Your task to perform on an android device: add a label to a message in the gmail app Image 0: 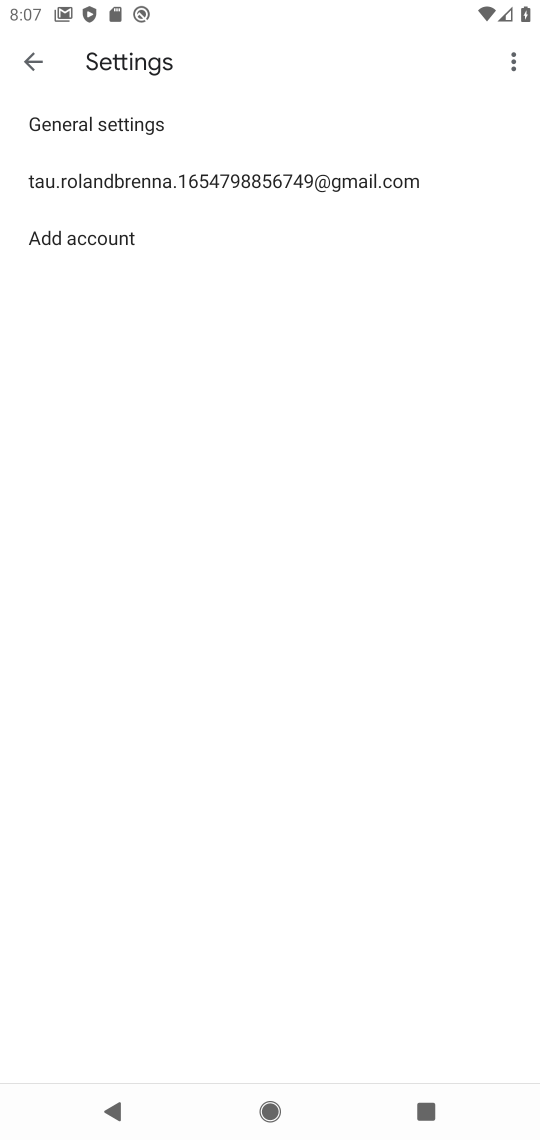
Step 0: press home button
Your task to perform on an android device: add a label to a message in the gmail app Image 1: 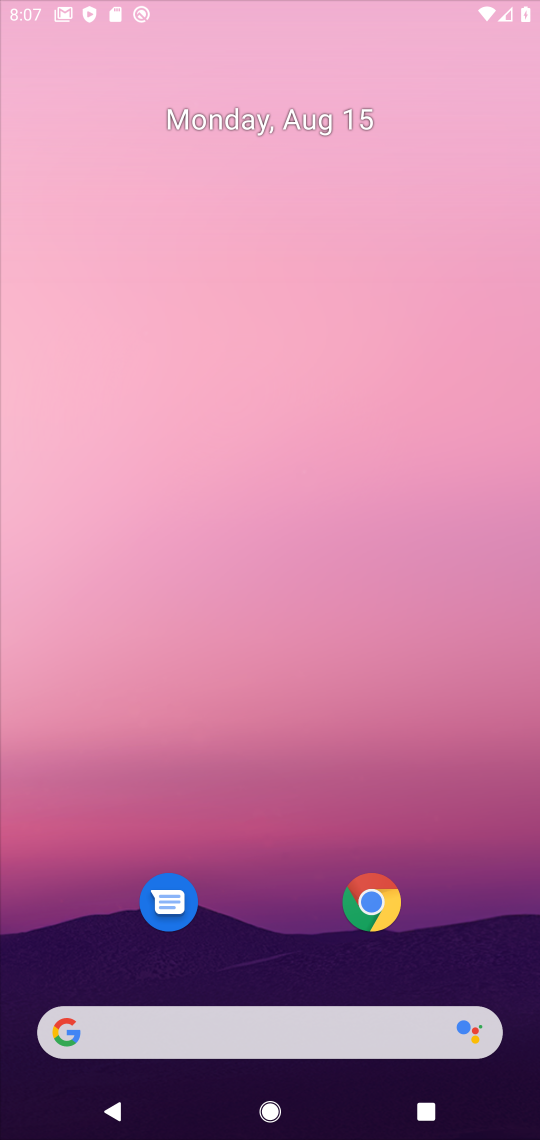
Step 1: drag from (507, 974) to (392, 28)
Your task to perform on an android device: add a label to a message in the gmail app Image 2: 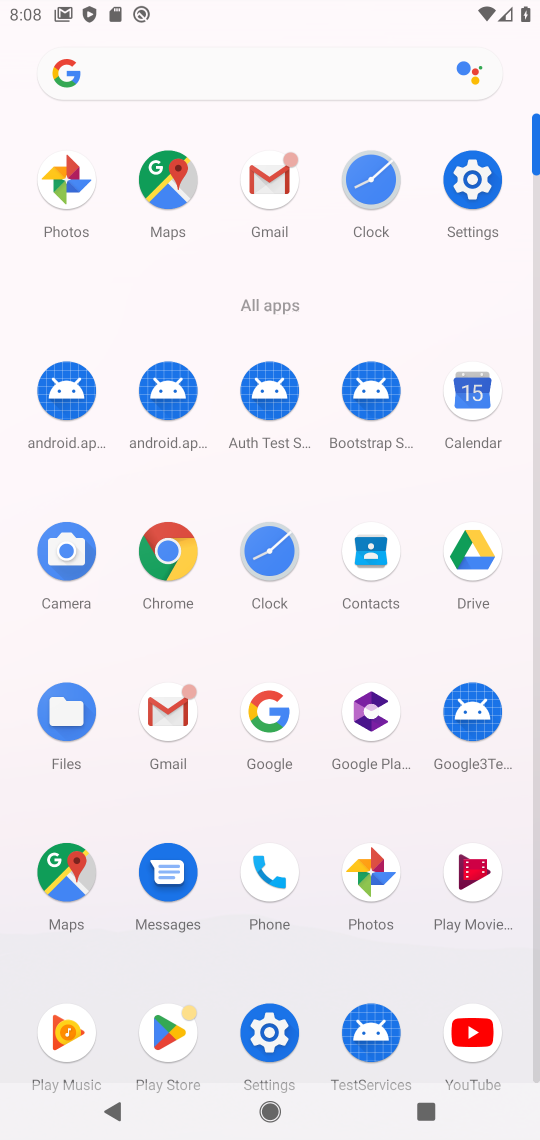
Step 2: click (150, 745)
Your task to perform on an android device: add a label to a message in the gmail app Image 3: 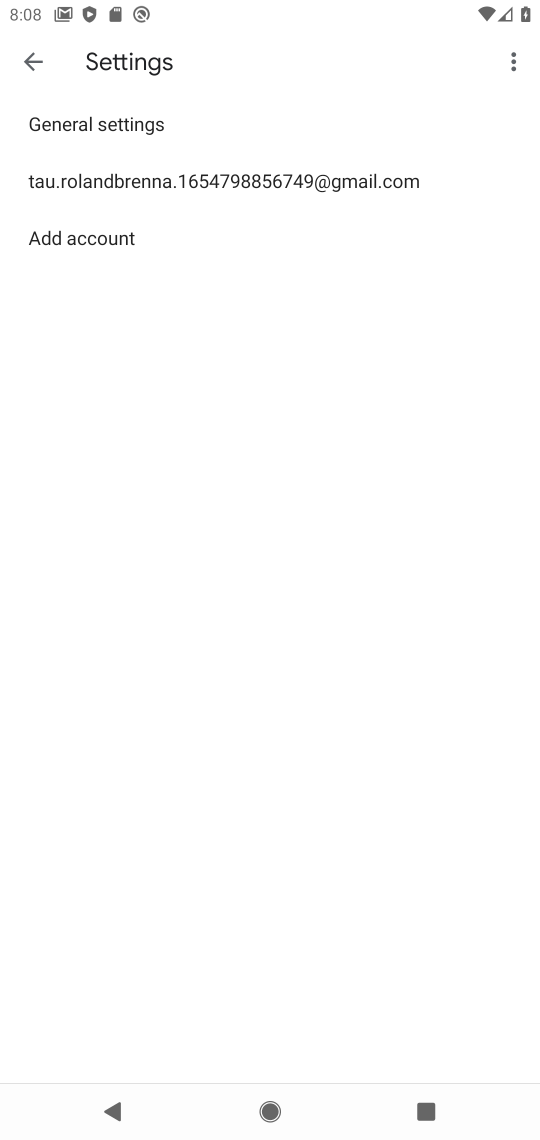
Step 3: task complete